Your task to perform on an android device: Open Youtube and go to the subscriptions tab Image 0: 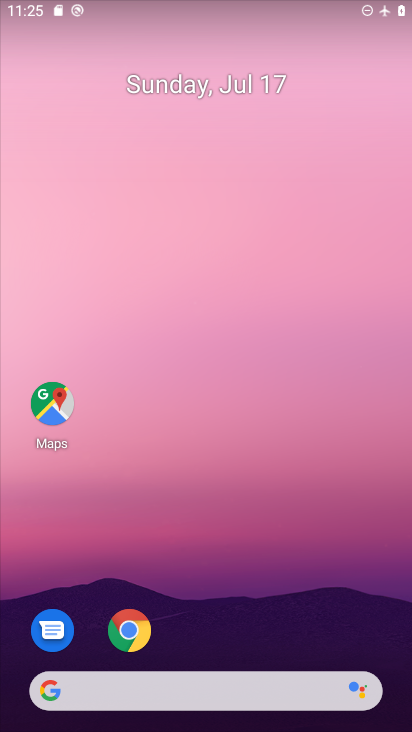
Step 0: drag from (178, 531) to (178, 243)
Your task to perform on an android device: Open Youtube and go to the subscriptions tab Image 1: 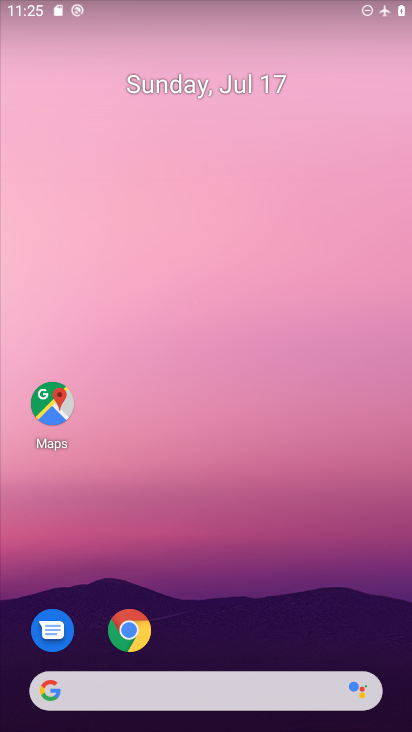
Step 1: drag from (202, 396) to (217, 6)
Your task to perform on an android device: Open Youtube and go to the subscriptions tab Image 2: 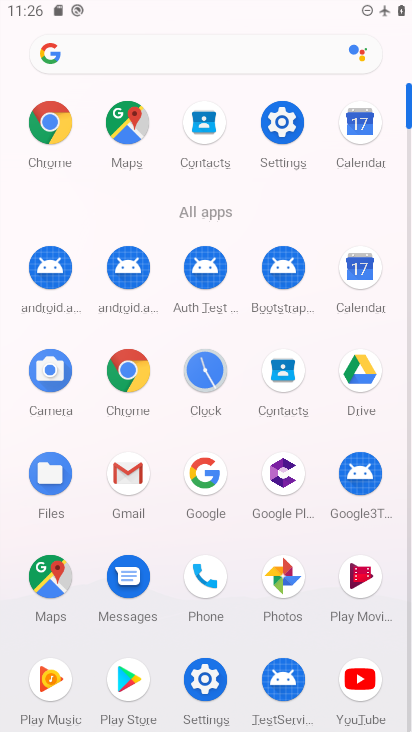
Step 2: click (354, 693)
Your task to perform on an android device: Open Youtube and go to the subscriptions tab Image 3: 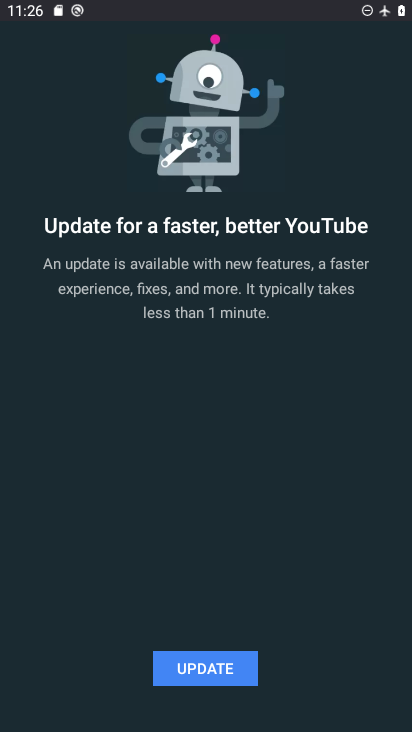
Step 3: click (183, 664)
Your task to perform on an android device: Open Youtube and go to the subscriptions tab Image 4: 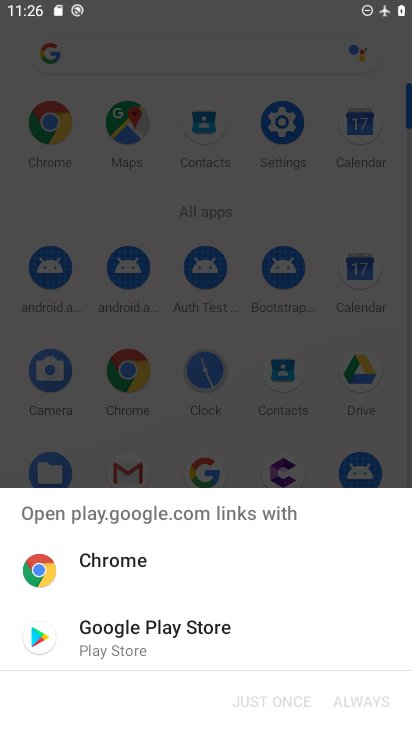
Step 4: click (157, 641)
Your task to perform on an android device: Open Youtube and go to the subscriptions tab Image 5: 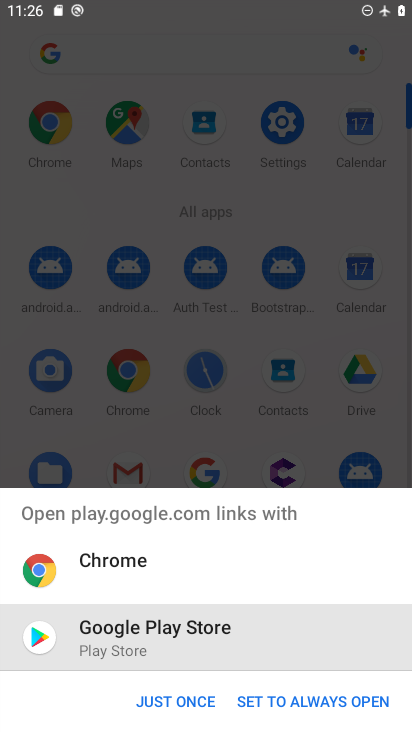
Step 5: click (256, 698)
Your task to perform on an android device: Open Youtube and go to the subscriptions tab Image 6: 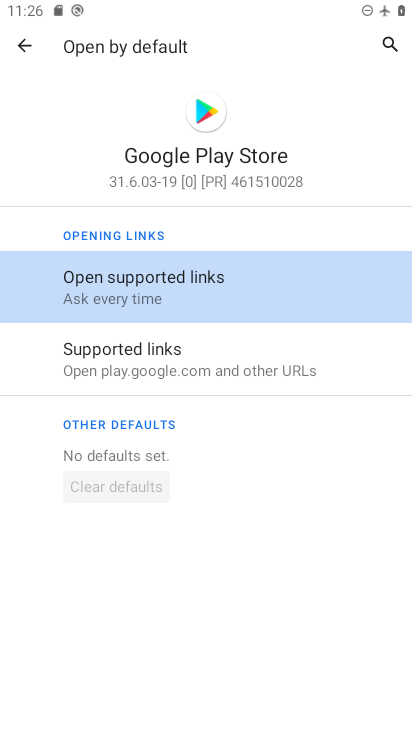
Step 6: click (200, 282)
Your task to perform on an android device: Open Youtube and go to the subscriptions tab Image 7: 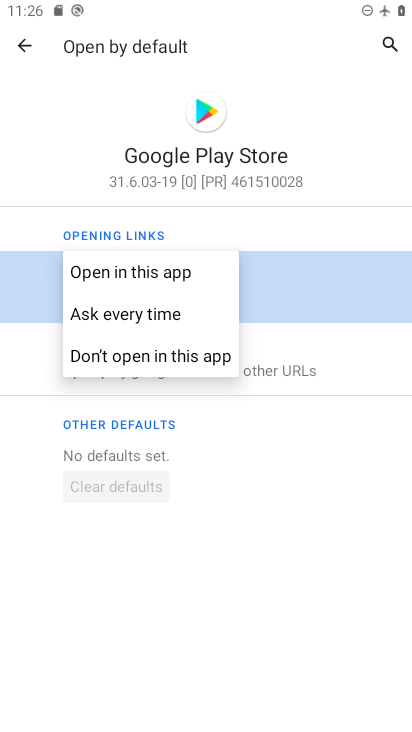
Step 7: click (159, 281)
Your task to perform on an android device: Open Youtube and go to the subscriptions tab Image 8: 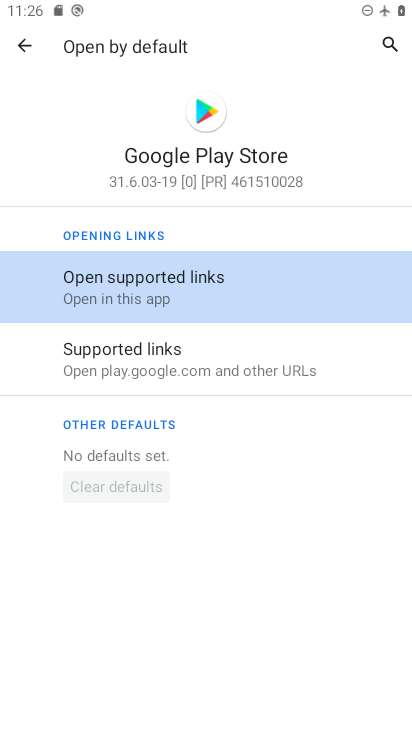
Step 8: click (29, 35)
Your task to perform on an android device: Open Youtube and go to the subscriptions tab Image 9: 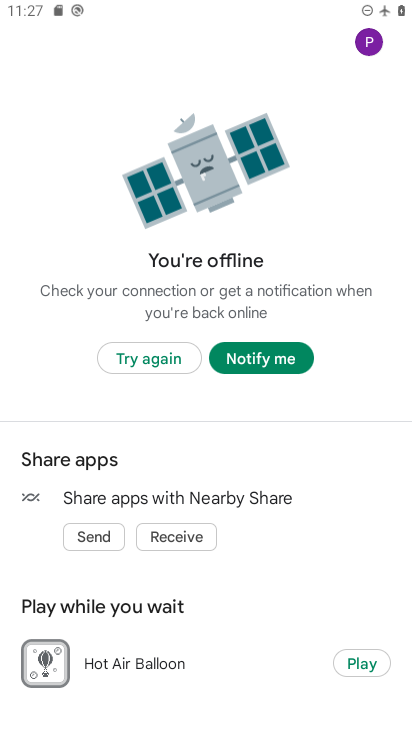
Step 9: task complete